Your task to perform on an android device: Check the news Image 0: 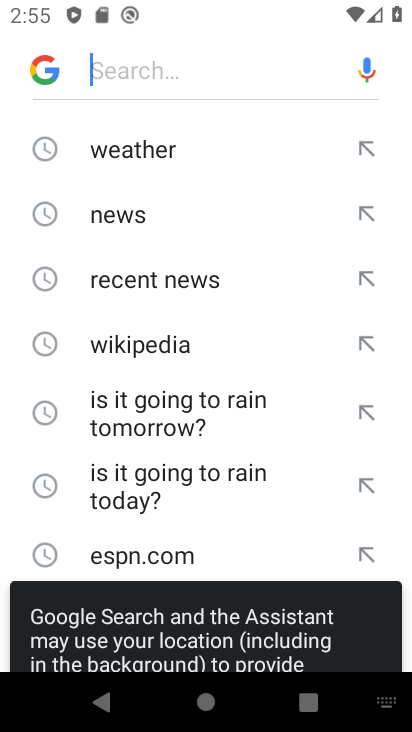
Step 0: press home button
Your task to perform on an android device: Check the news Image 1: 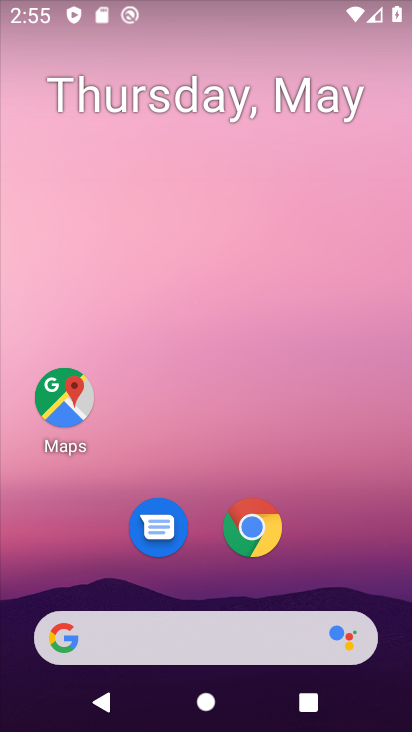
Step 1: task complete